Your task to perform on an android device: turn notification dots on Image 0: 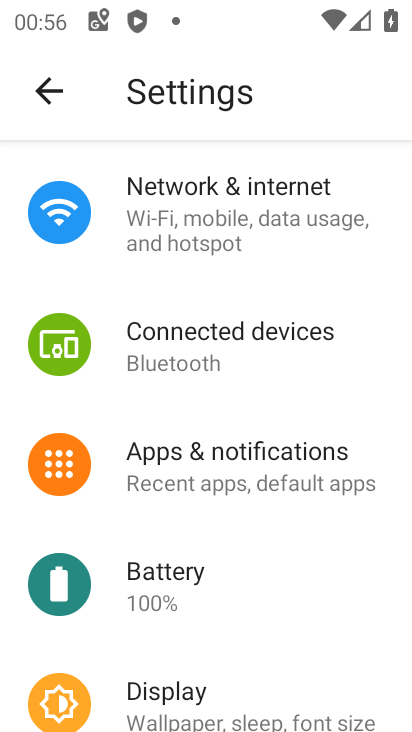
Step 0: press home button
Your task to perform on an android device: turn notification dots on Image 1: 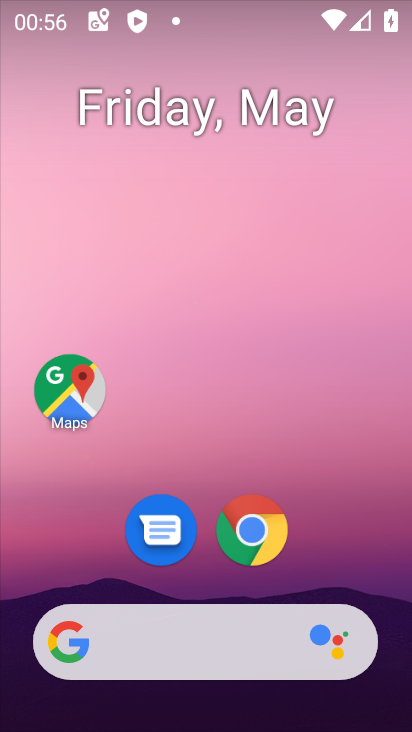
Step 1: drag from (330, 527) to (251, 173)
Your task to perform on an android device: turn notification dots on Image 2: 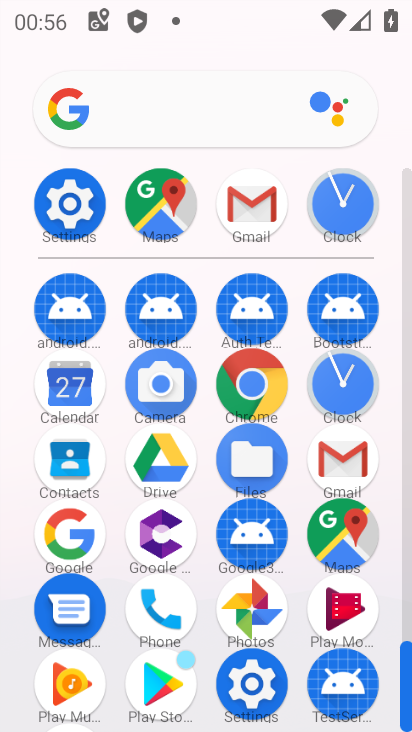
Step 2: click (252, 683)
Your task to perform on an android device: turn notification dots on Image 3: 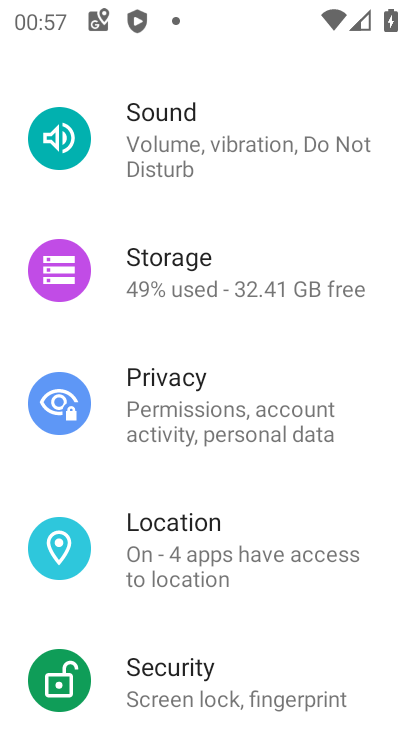
Step 3: drag from (256, 637) to (304, 492)
Your task to perform on an android device: turn notification dots on Image 4: 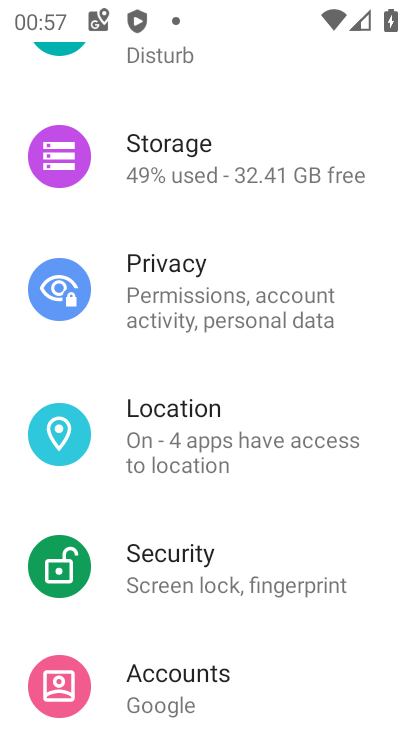
Step 4: drag from (303, 398) to (286, 574)
Your task to perform on an android device: turn notification dots on Image 5: 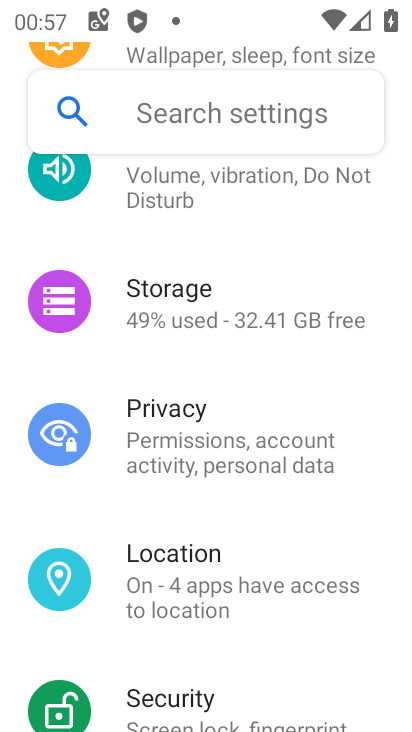
Step 5: click (241, 551)
Your task to perform on an android device: turn notification dots on Image 6: 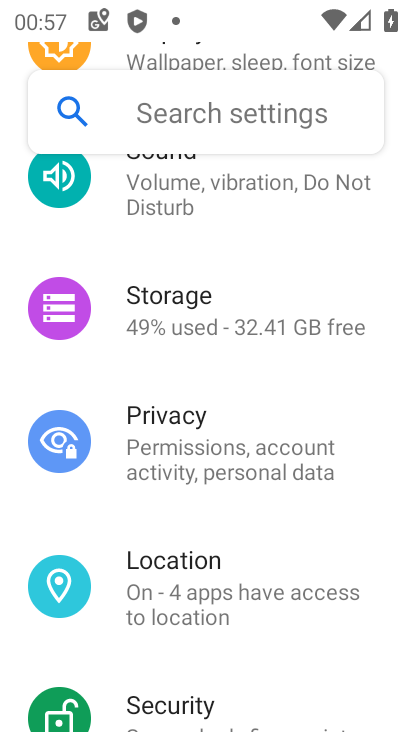
Step 6: drag from (269, 257) to (266, 410)
Your task to perform on an android device: turn notification dots on Image 7: 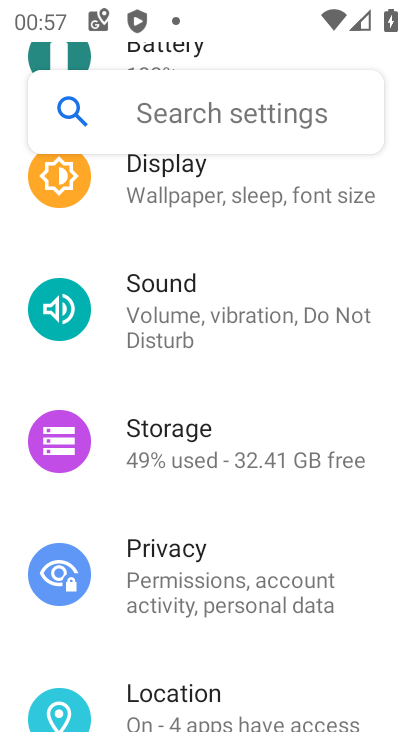
Step 7: drag from (258, 247) to (297, 397)
Your task to perform on an android device: turn notification dots on Image 8: 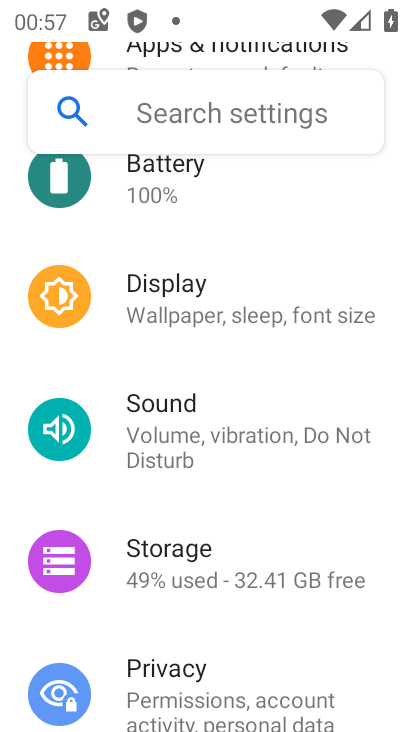
Step 8: drag from (299, 248) to (315, 401)
Your task to perform on an android device: turn notification dots on Image 9: 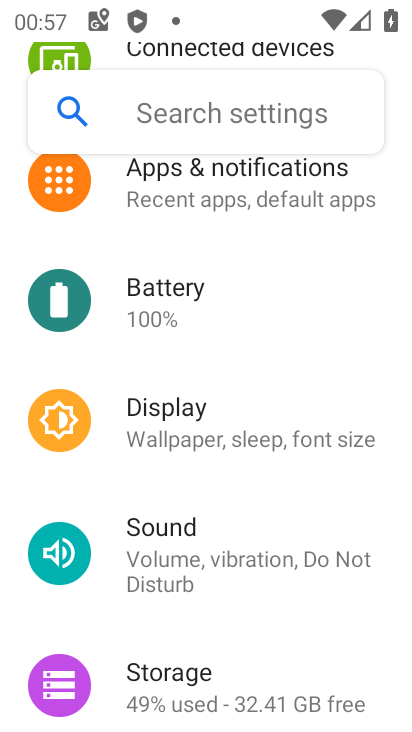
Step 9: drag from (259, 283) to (306, 447)
Your task to perform on an android device: turn notification dots on Image 10: 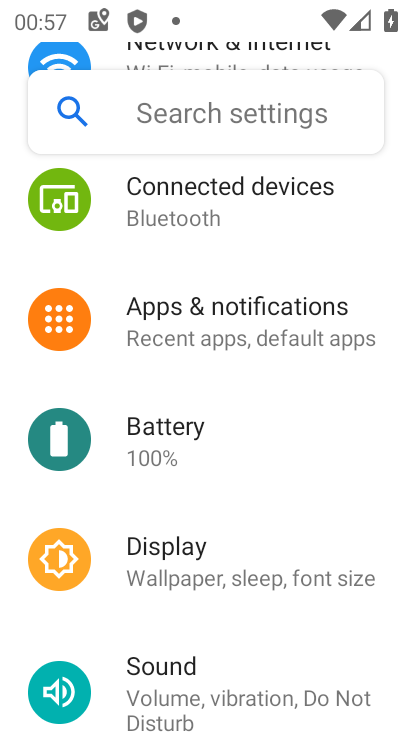
Step 10: click (260, 339)
Your task to perform on an android device: turn notification dots on Image 11: 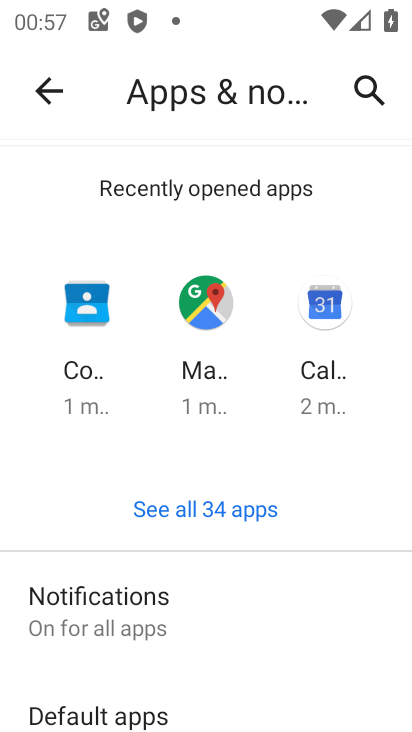
Step 11: click (156, 595)
Your task to perform on an android device: turn notification dots on Image 12: 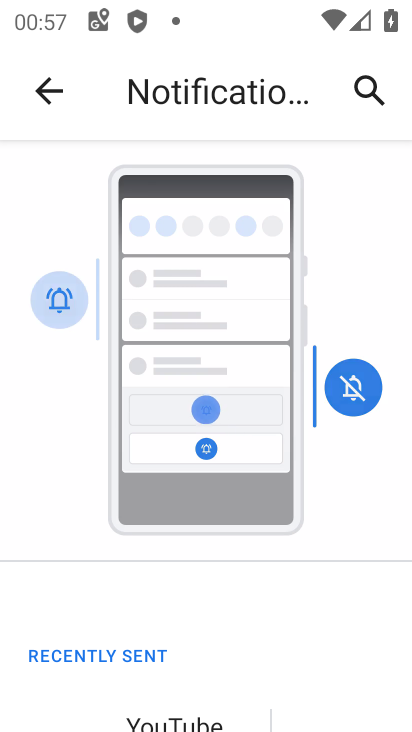
Step 12: drag from (220, 611) to (285, 363)
Your task to perform on an android device: turn notification dots on Image 13: 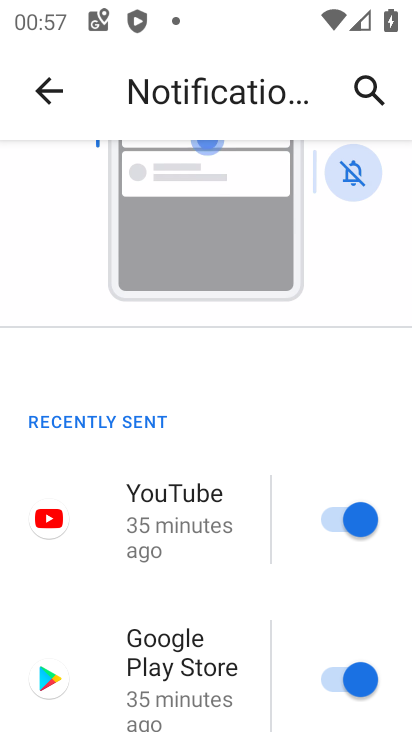
Step 13: drag from (203, 601) to (238, 475)
Your task to perform on an android device: turn notification dots on Image 14: 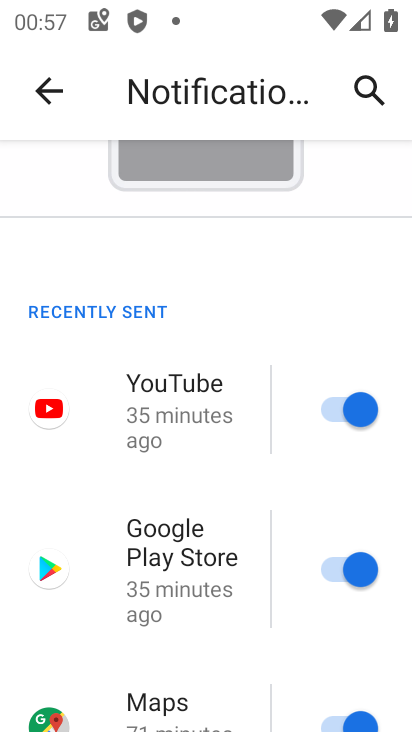
Step 14: drag from (173, 663) to (220, 465)
Your task to perform on an android device: turn notification dots on Image 15: 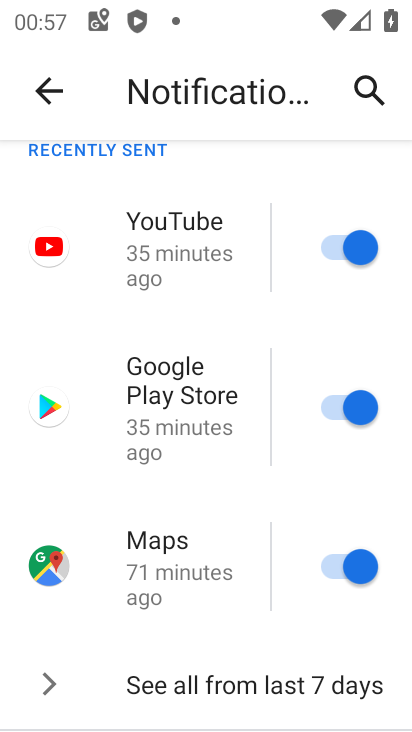
Step 15: drag from (177, 629) to (237, 463)
Your task to perform on an android device: turn notification dots on Image 16: 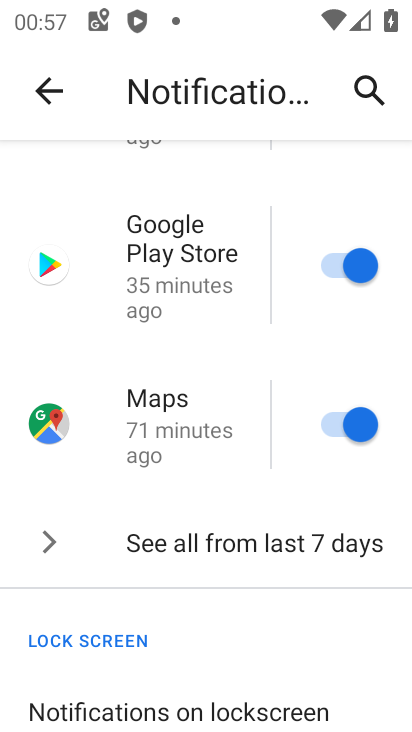
Step 16: drag from (210, 640) to (217, 422)
Your task to perform on an android device: turn notification dots on Image 17: 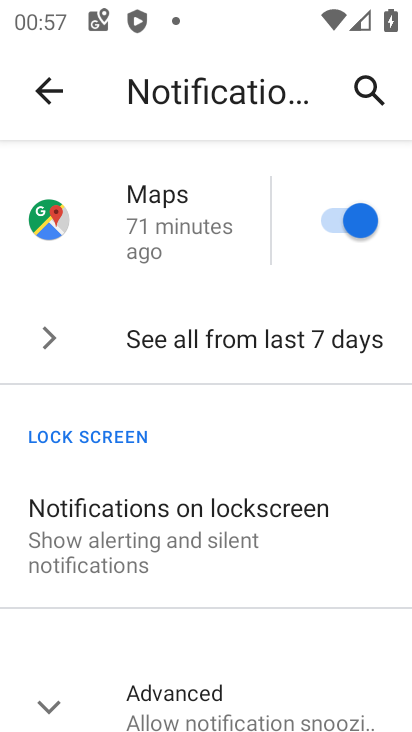
Step 17: drag from (184, 640) to (268, 508)
Your task to perform on an android device: turn notification dots on Image 18: 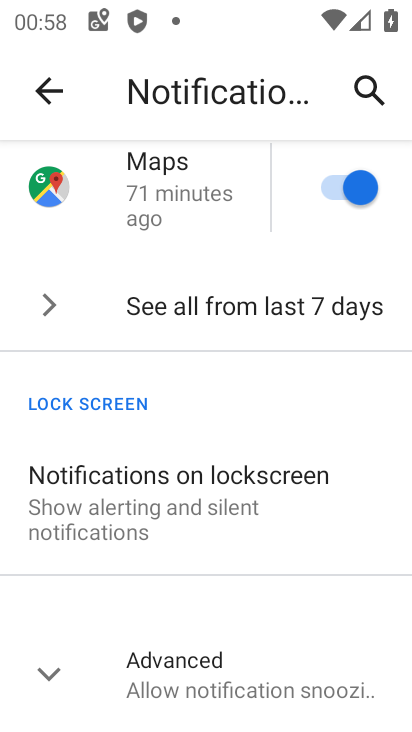
Step 18: click (215, 666)
Your task to perform on an android device: turn notification dots on Image 19: 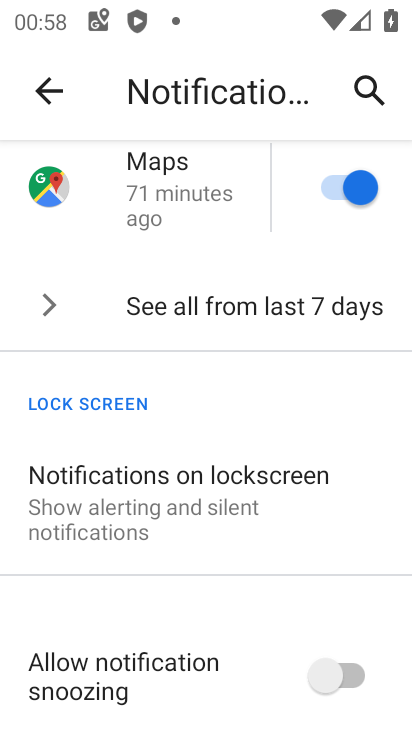
Step 19: task complete